Your task to perform on an android device: turn on the 24-hour format for clock Image 0: 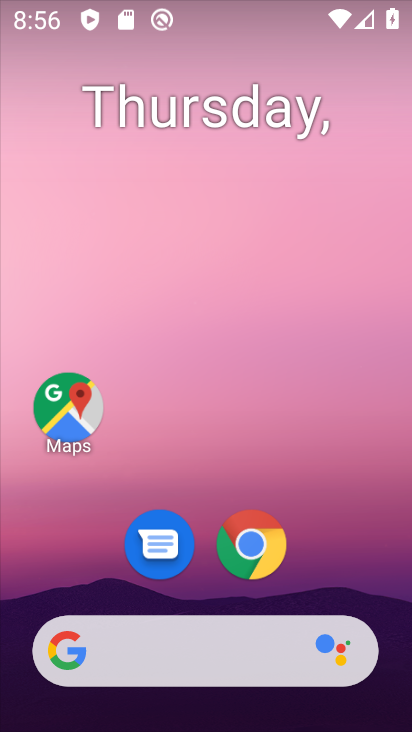
Step 0: drag from (192, 675) to (320, 102)
Your task to perform on an android device: turn on the 24-hour format for clock Image 1: 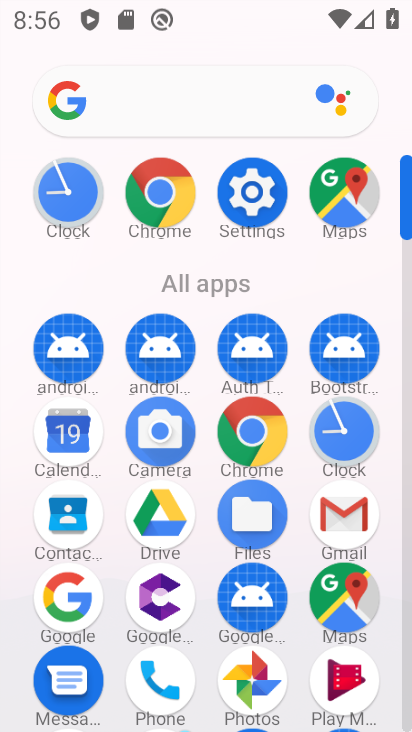
Step 1: click (57, 200)
Your task to perform on an android device: turn on the 24-hour format for clock Image 2: 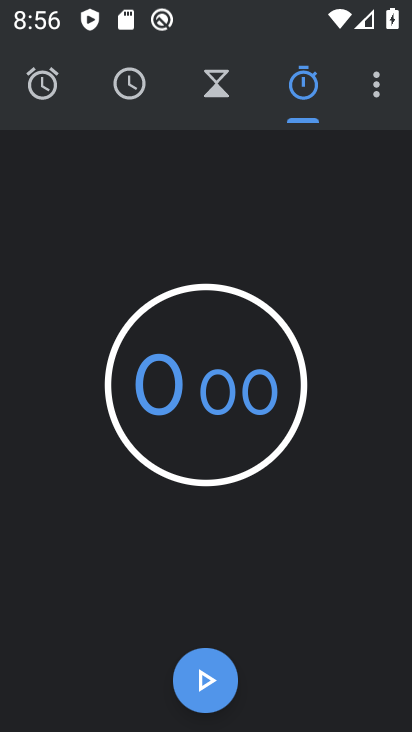
Step 2: click (380, 89)
Your task to perform on an android device: turn on the 24-hour format for clock Image 3: 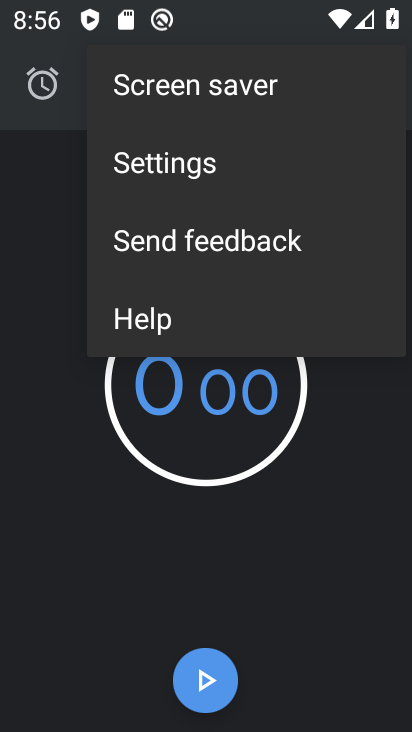
Step 3: click (241, 170)
Your task to perform on an android device: turn on the 24-hour format for clock Image 4: 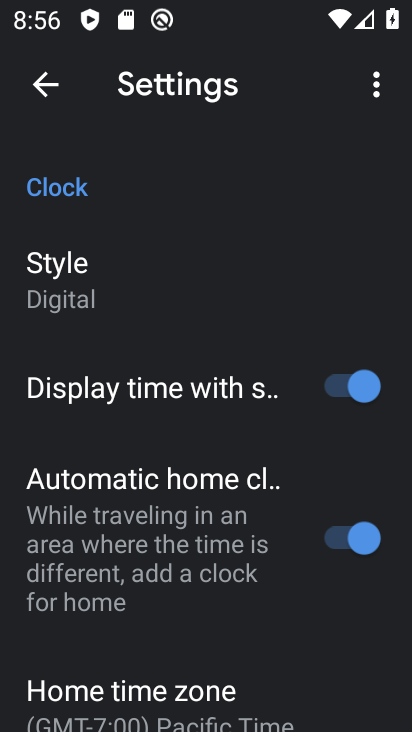
Step 4: drag from (274, 665) to (343, 282)
Your task to perform on an android device: turn on the 24-hour format for clock Image 5: 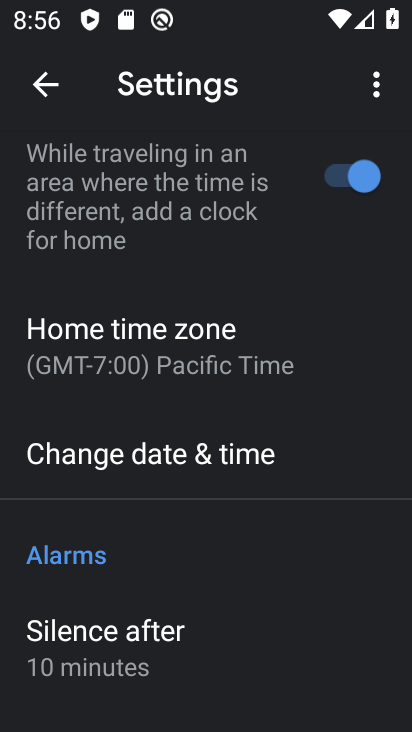
Step 5: click (243, 461)
Your task to perform on an android device: turn on the 24-hour format for clock Image 6: 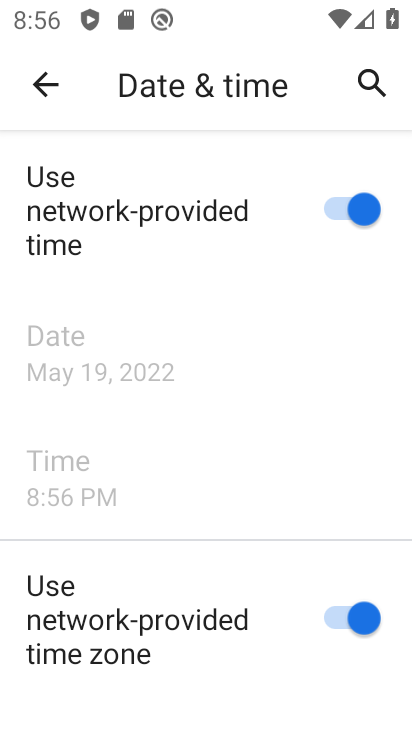
Step 6: drag from (268, 581) to (286, 210)
Your task to perform on an android device: turn on the 24-hour format for clock Image 7: 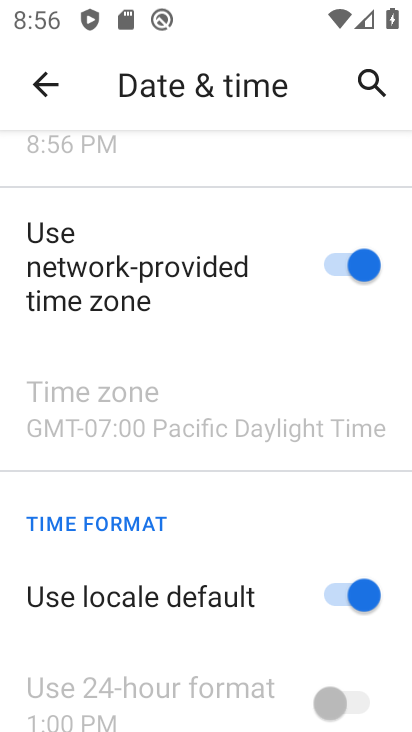
Step 7: drag from (228, 622) to (294, 186)
Your task to perform on an android device: turn on the 24-hour format for clock Image 8: 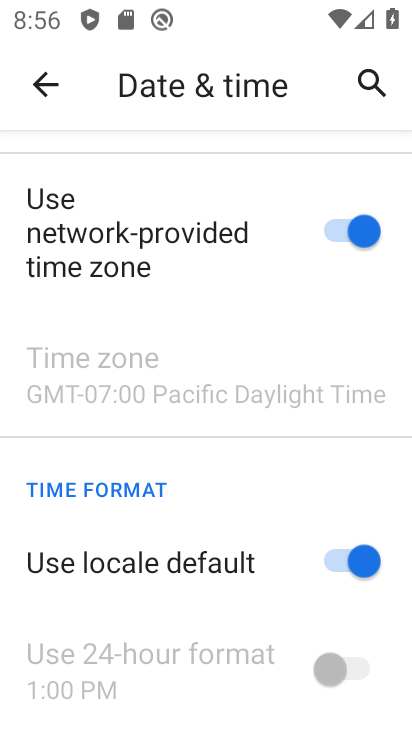
Step 8: click (363, 564)
Your task to perform on an android device: turn on the 24-hour format for clock Image 9: 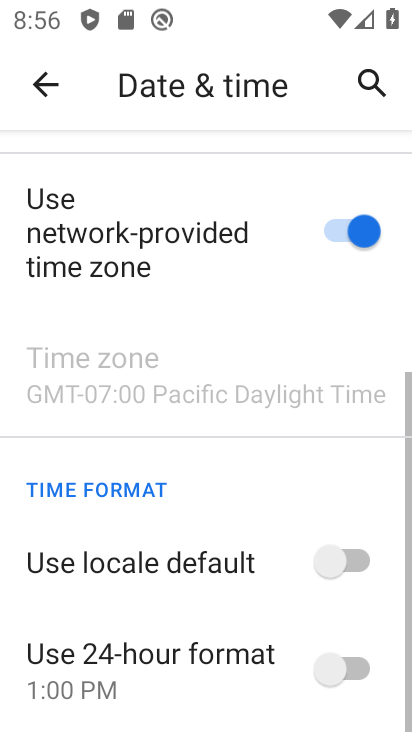
Step 9: click (360, 668)
Your task to perform on an android device: turn on the 24-hour format for clock Image 10: 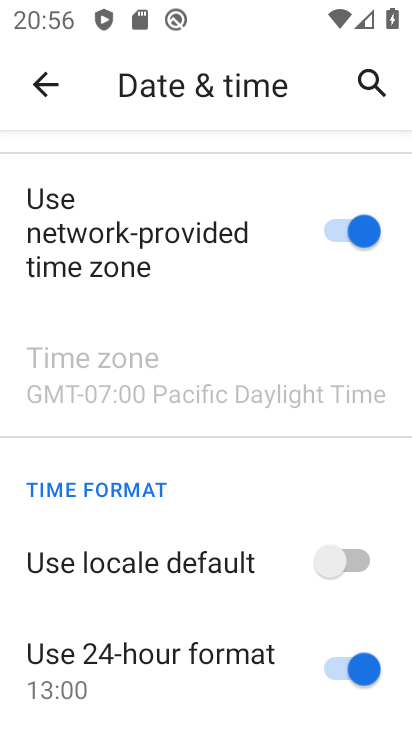
Step 10: task complete